Your task to perform on an android device: Open settings on Google Maps Image 0: 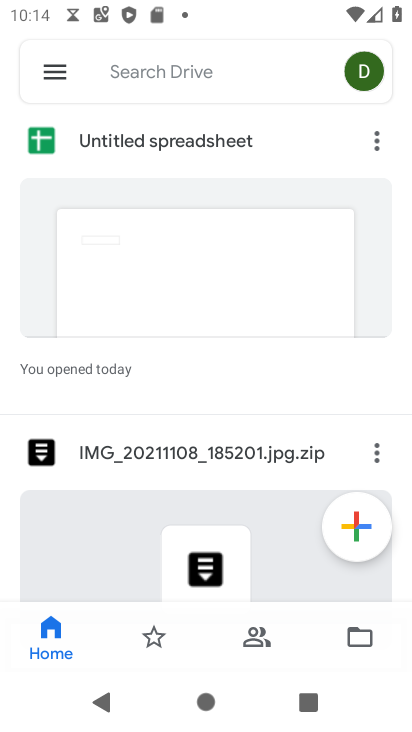
Step 0: press home button
Your task to perform on an android device: Open settings on Google Maps Image 1: 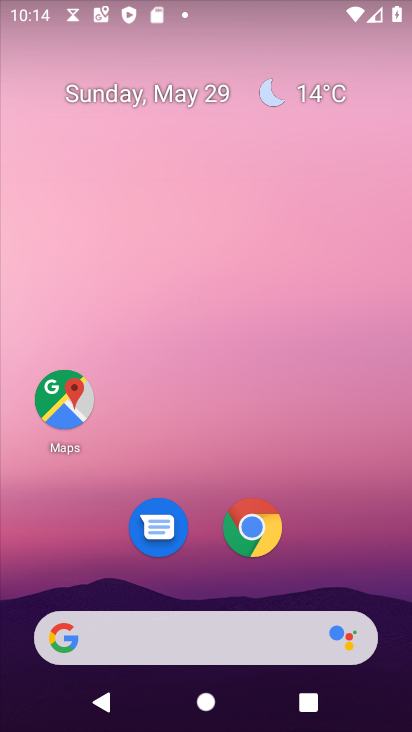
Step 1: click (62, 413)
Your task to perform on an android device: Open settings on Google Maps Image 2: 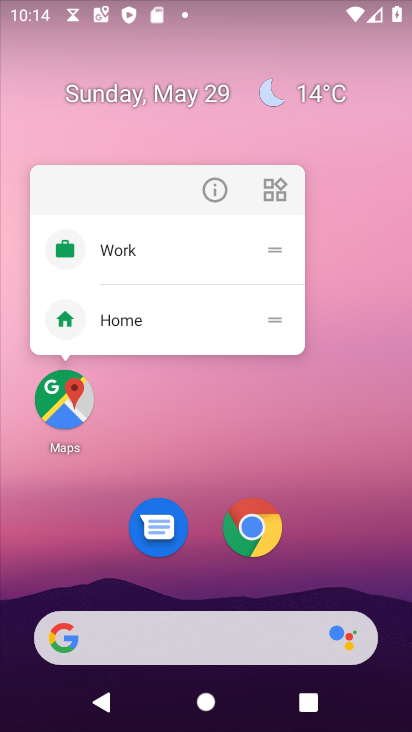
Step 2: click (70, 404)
Your task to perform on an android device: Open settings on Google Maps Image 3: 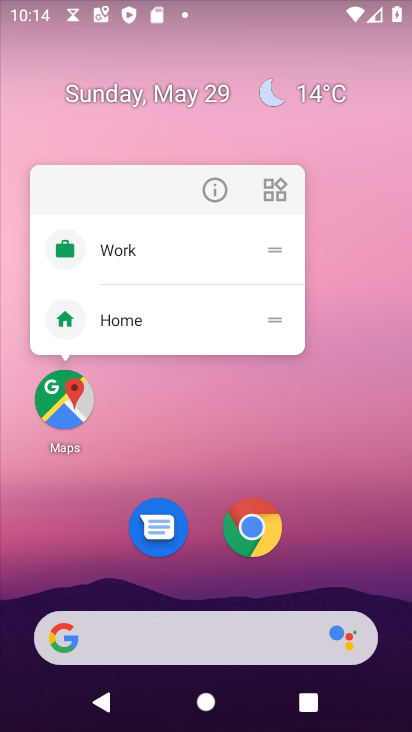
Step 3: click (61, 405)
Your task to perform on an android device: Open settings on Google Maps Image 4: 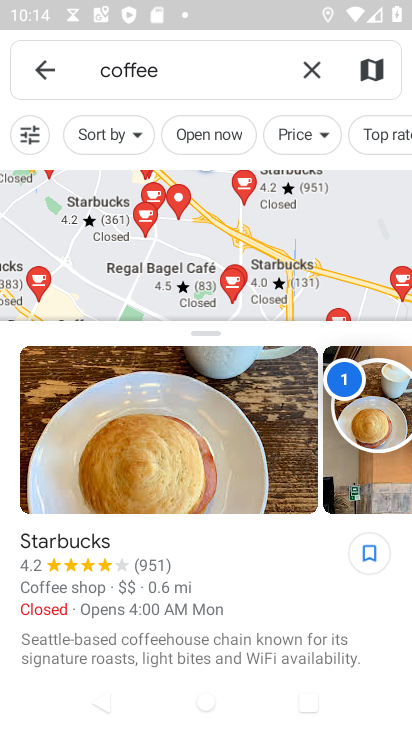
Step 4: click (40, 71)
Your task to perform on an android device: Open settings on Google Maps Image 5: 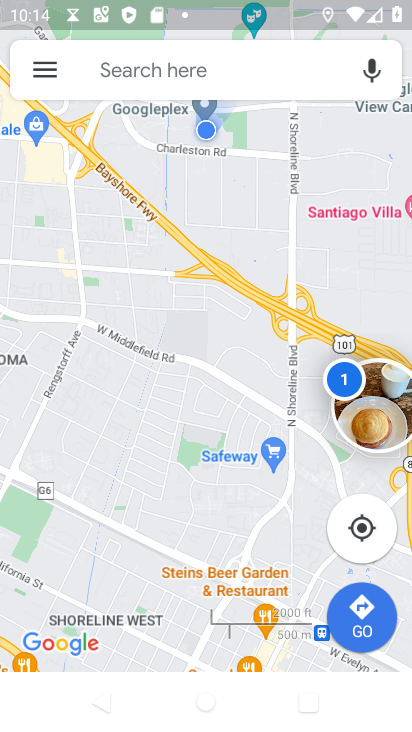
Step 5: click (40, 70)
Your task to perform on an android device: Open settings on Google Maps Image 6: 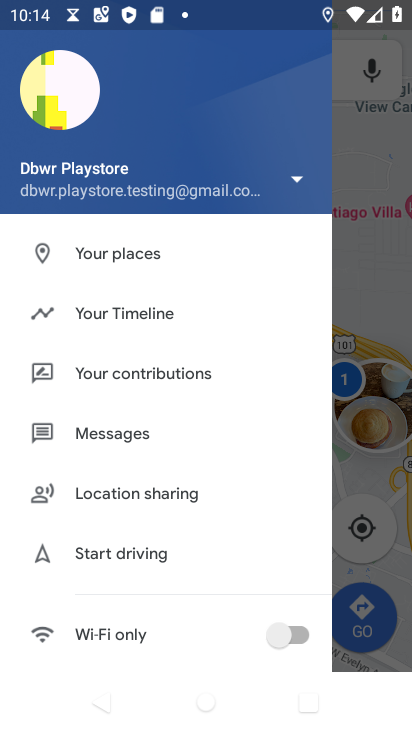
Step 6: drag from (186, 346) to (220, 137)
Your task to perform on an android device: Open settings on Google Maps Image 7: 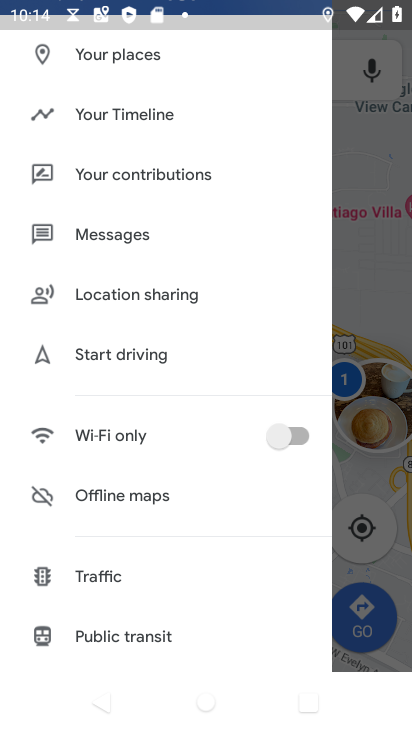
Step 7: drag from (173, 626) to (248, 35)
Your task to perform on an android device: Open settings on Google Maps Image 8: 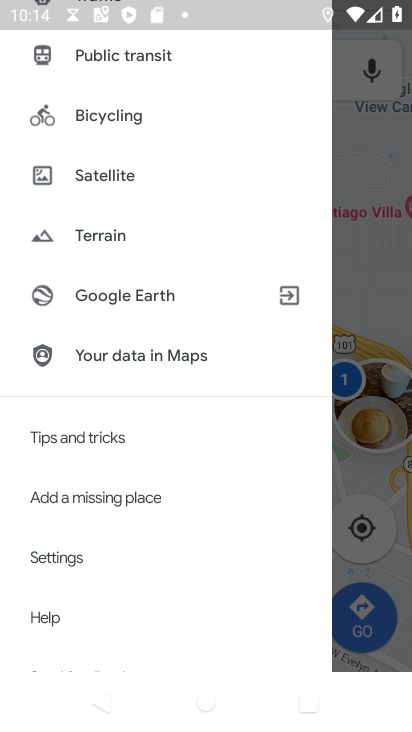
Step 8: click (56, 559)
Your task to perform on an android device: Open settings on Google Maps Image 9: 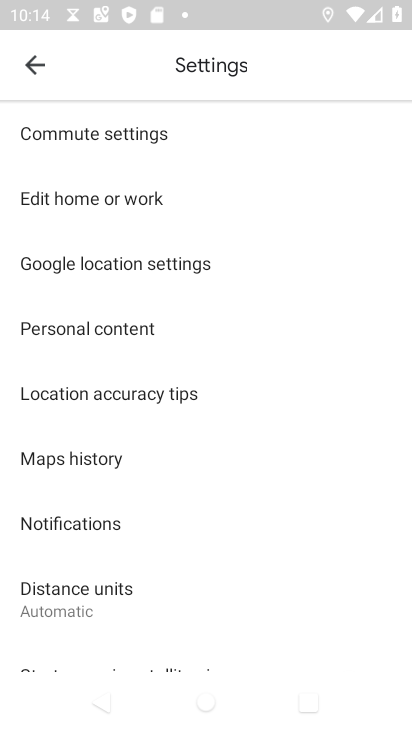
Step 9: task complete